Your task to perform on an android device: check android version Image 0: 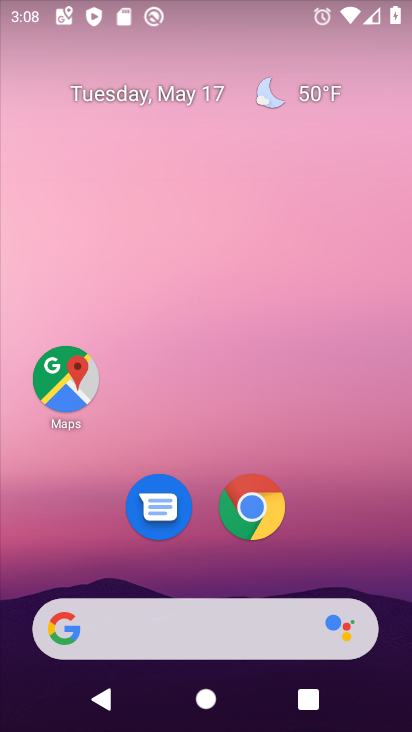
Step 0: drag from (353, 548) to (232, 30)
Your task to perform on an android device: check android version Image 1: 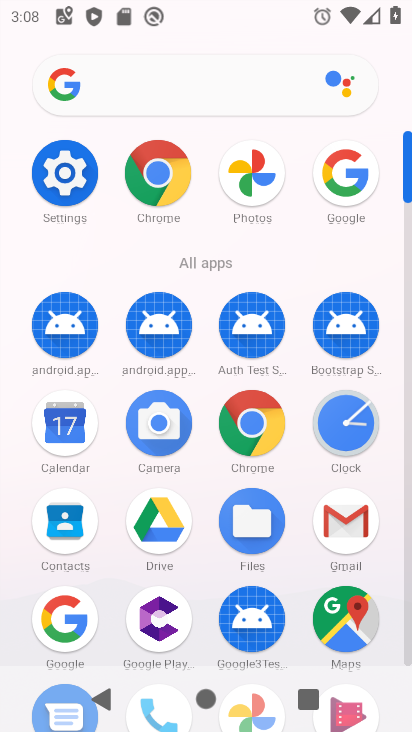
Step 1: click (66, 169)
Your task to perform on an android device: check android version Image 2: 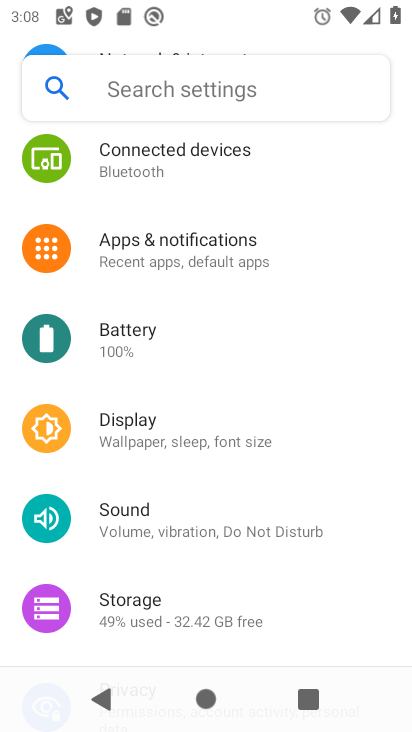
Step 2: drag from (290, 546) to (271, 74)
Your task to perform on an android device: check android version Image 3: 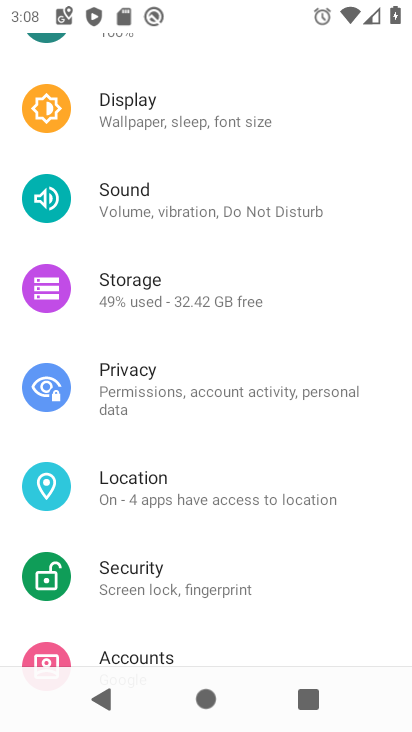
Step 3: drag from (209, 467) to (205, 125)
Your task to perform on an android device: check android version Image 4: 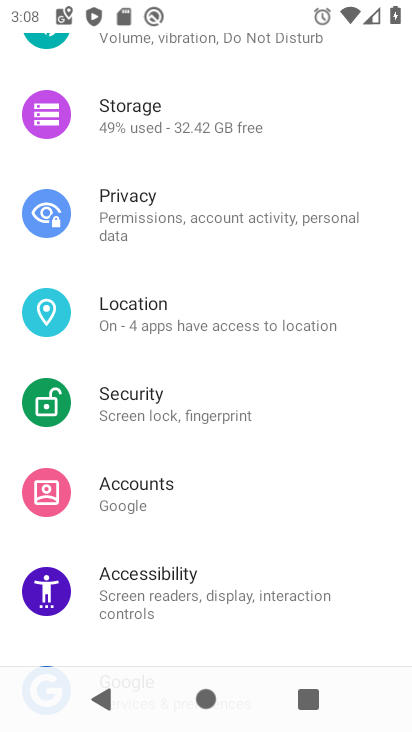
Step 4: drag from (167, 595) to (197, 177)
Your task to perform on an android device: check android version Image 5: 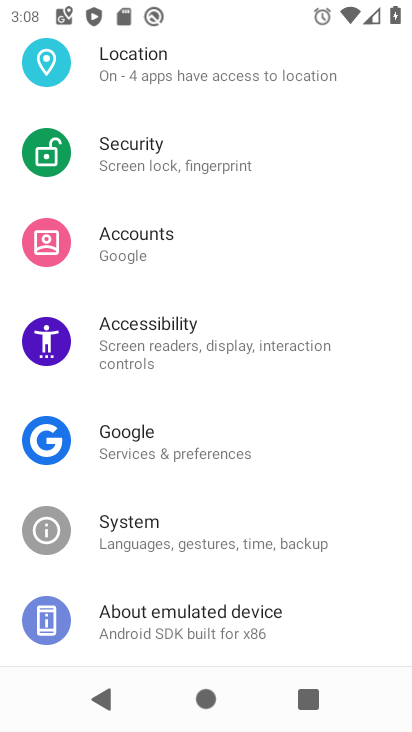
Step 5: click (189, 610)
Your task to perform on an android device: check android version Image 6: 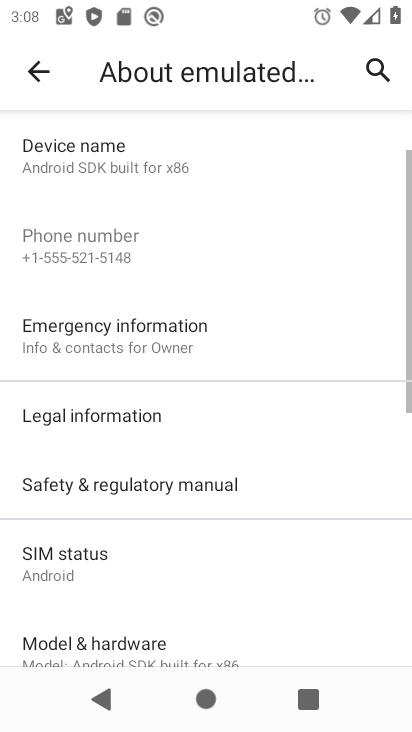
Step 6: drag from (206, 543) to (229, 87)
Your task to perform on an android device: check android version Image 7: 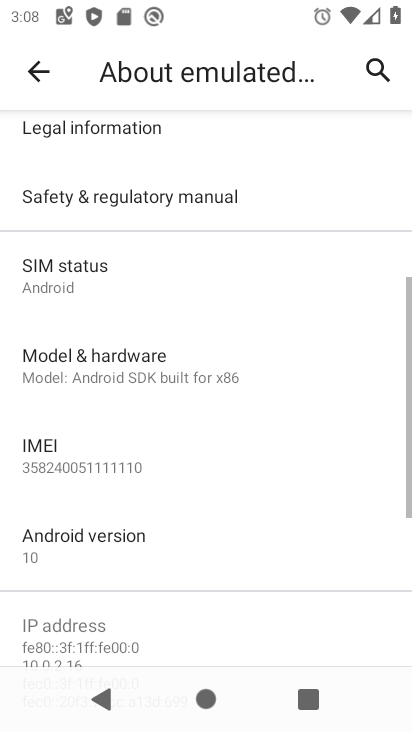
Step 7: click (129, 544)
Your task to perform on an android device: check android version Image 8: 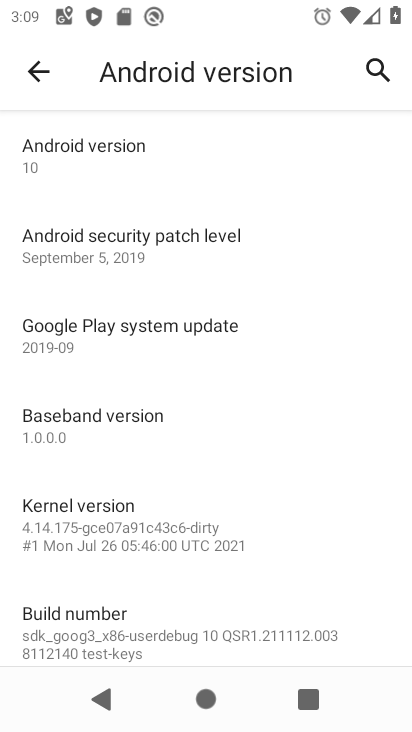
Step 8: task complete